Your task to perform on an android device: add a contact in the contacts app Image 0: 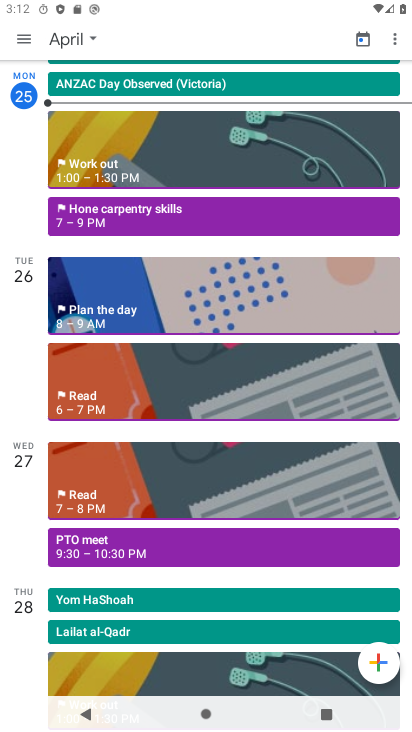
Step 0: press home button
Your task to perform on an android device: add a contact in the contacts app Image 1: 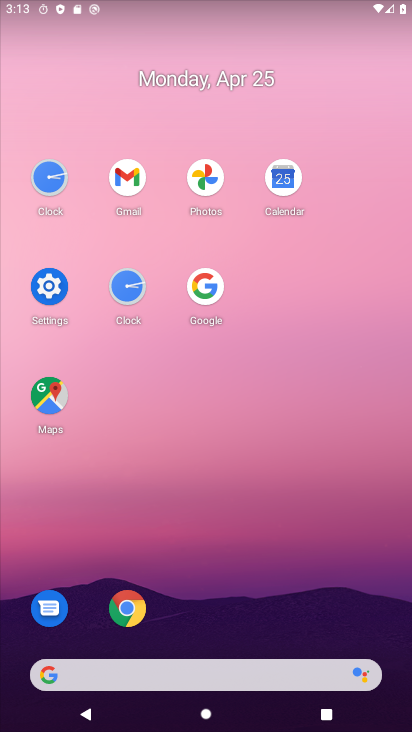
Step 1: drag from (208, 643) to (254, 199)
Your task to perform on an android device: add a contact in the contacts app Image 2: 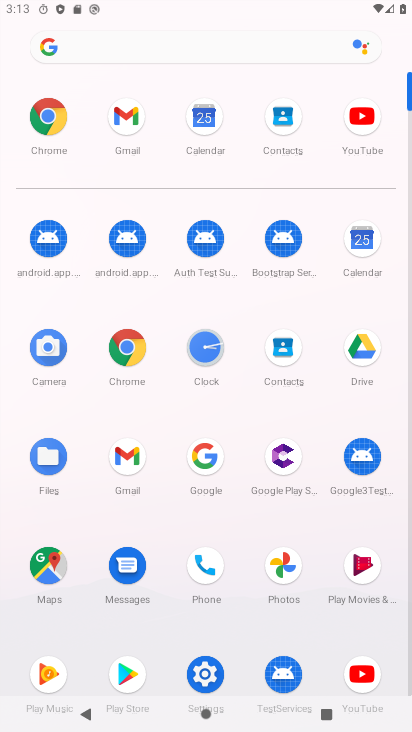
Step 2: click (282, 349)
Your task to perform on an android device: add a contact in the contacts app Image 3: 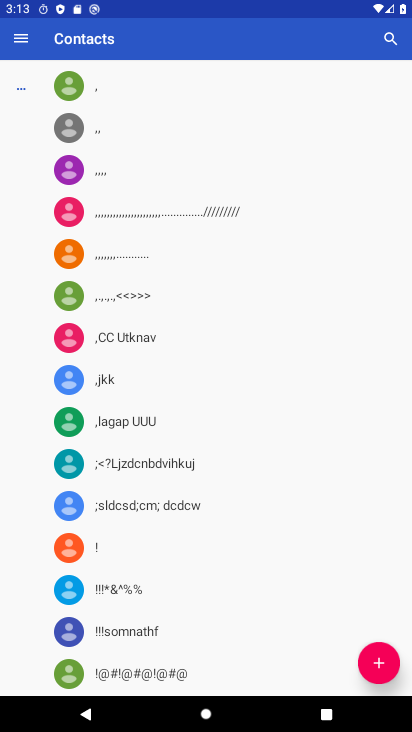
Step 3: click (381, 669)
Your task to perform on an android device: add a contact in the contacts app Image 4: 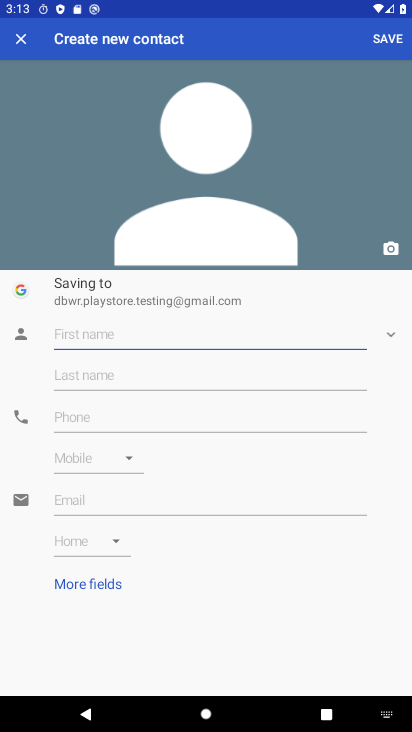
Step 4: type "aabbcc"
Your task to perform on an android device: add a contact in the contacts app Image 5: 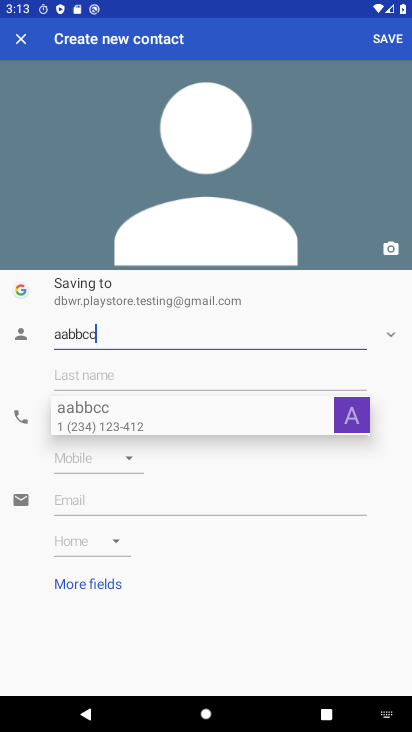
Step 5: click (121, 375)
Your task to perform on an android device: add a contact in the contacts app Image 6: 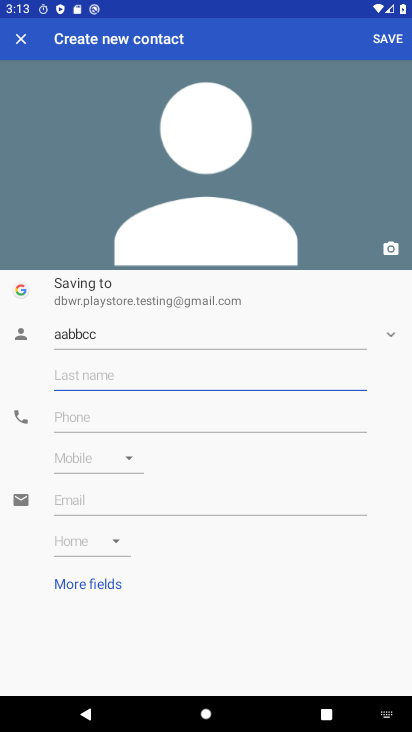
Step 6: type "xxyyzz"
Your task to perform on an android device: add a contact in the contacts app Image 7: 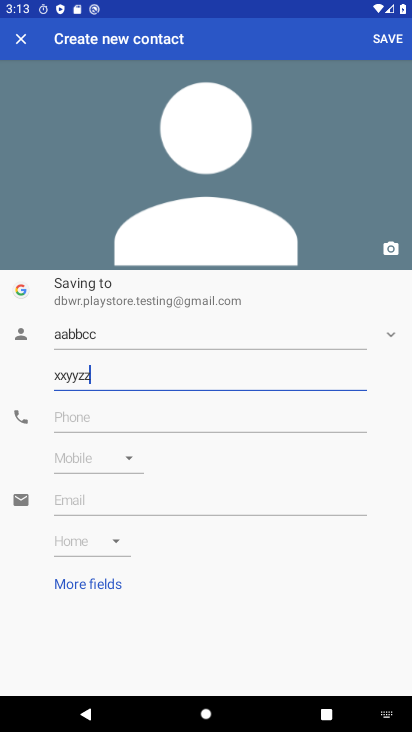
Step 7: click (224, 422)
Your task to perform on an android device: add a contact in the contacts app Image 8: 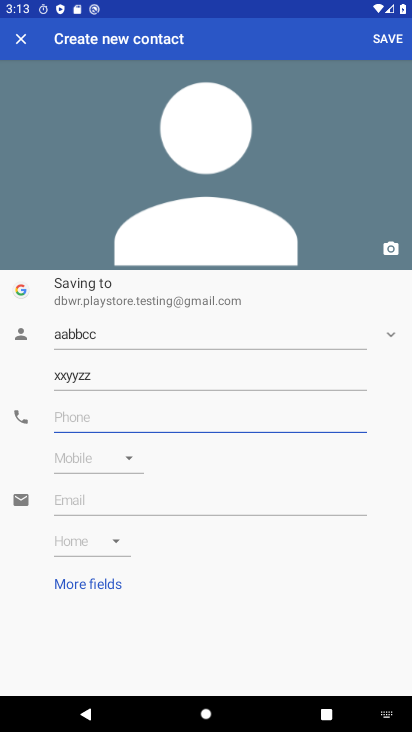
Step 8: type "8876889012"
Your task to perform on an android device: add a contact in the contacts app Image 9: 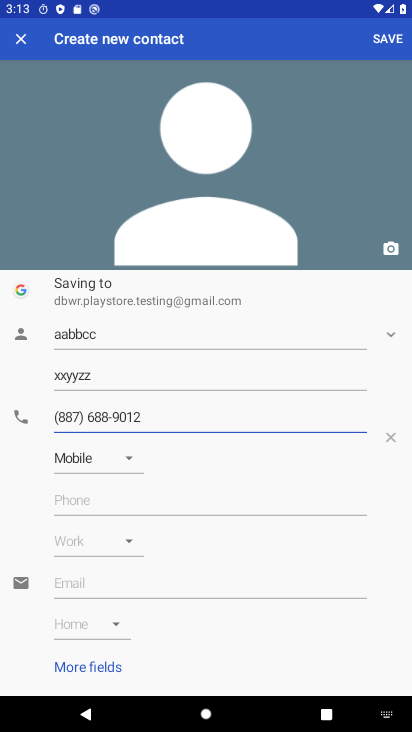
Step 9: task complete